Your task to perform on an android device: uninstall "Google Duo" Image 0: 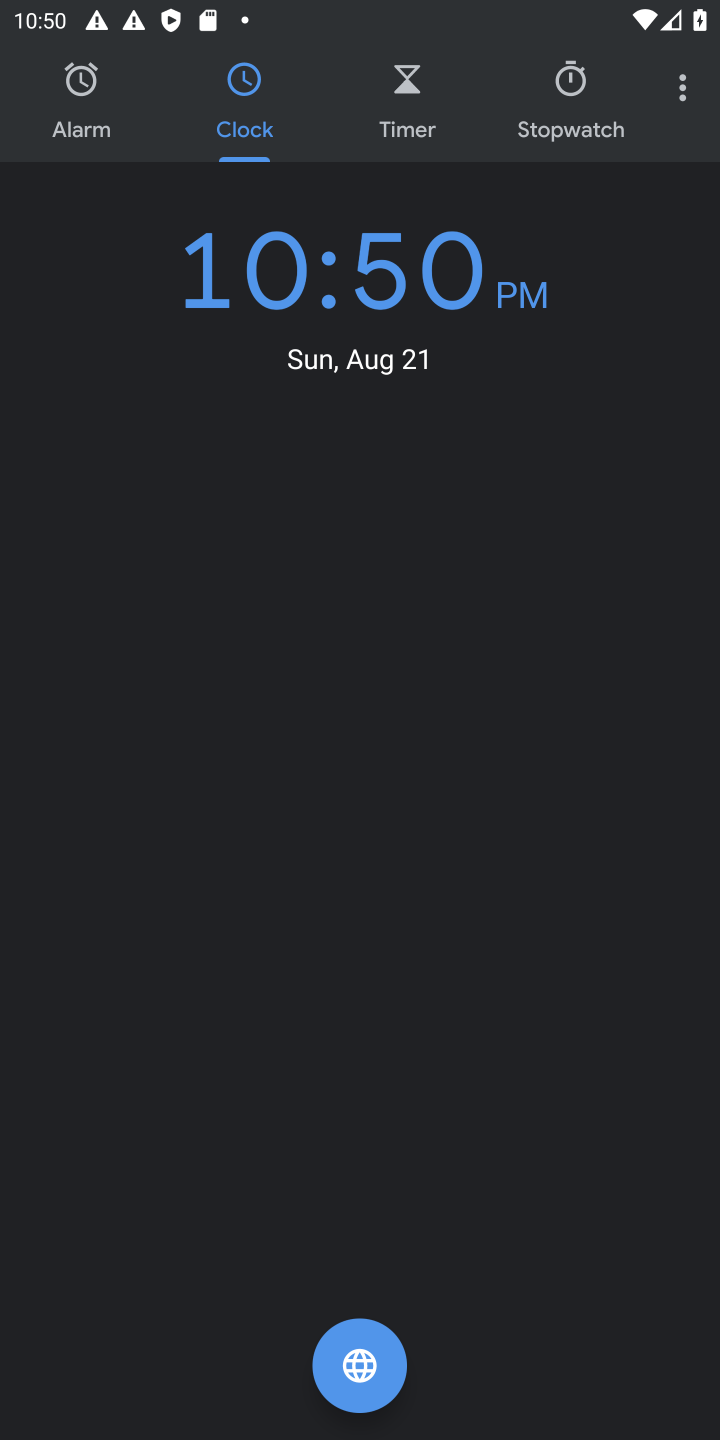
Step 0: press home button
Your task to perform on an android device: uninstall "Google Duo" Image 1: 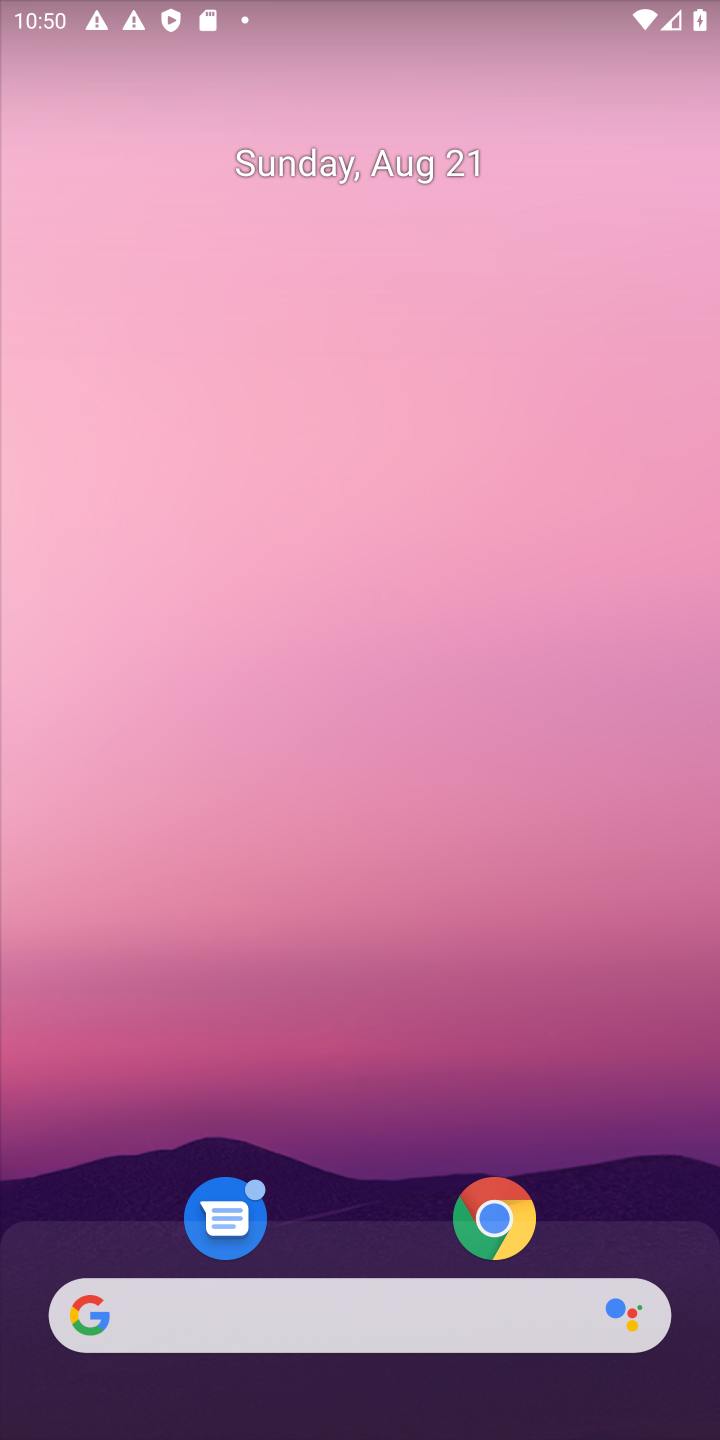
Step 1: drag from (385, 1318) to (413, 249)
Your task to perform on an android device: uninstall "Google Duo" Image 2: 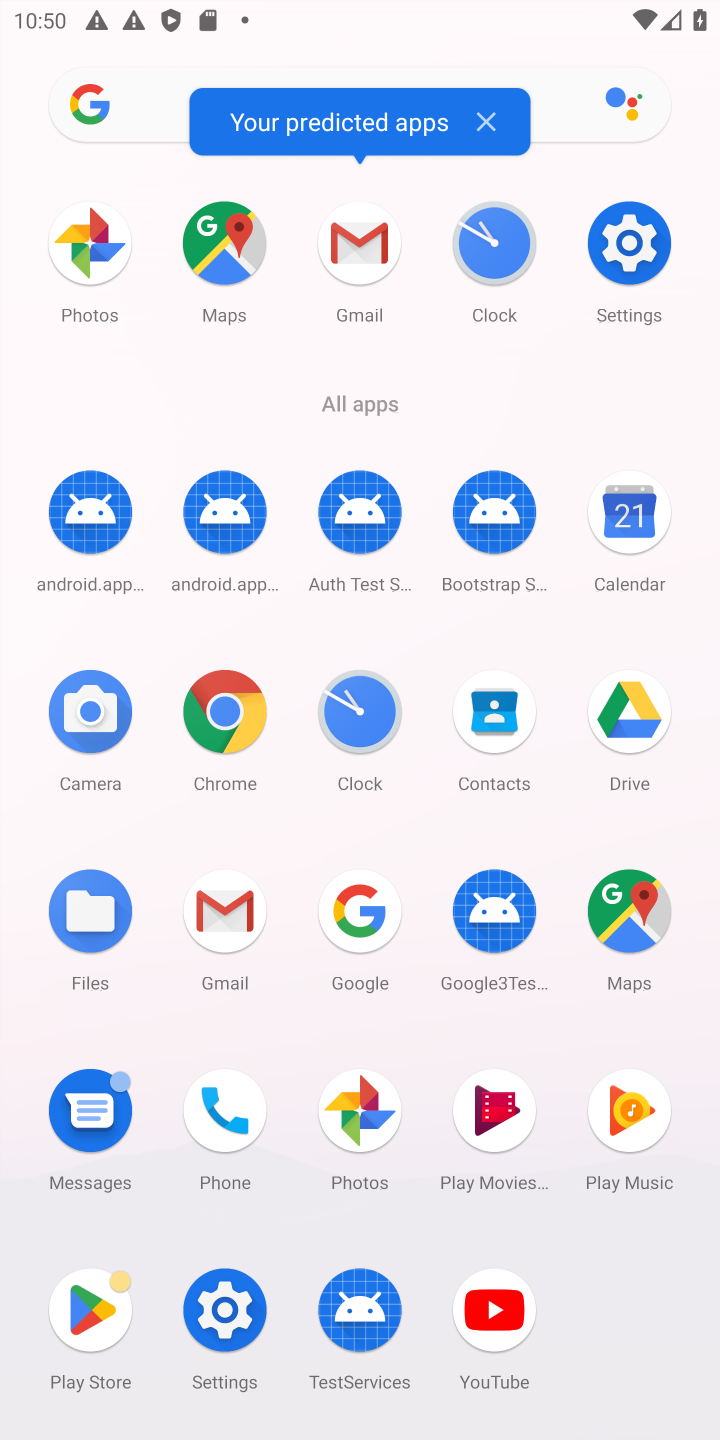
Step 2: click (78, 1315)
Your task to perform on an android device: uninstall "Google Duo" Image 3: 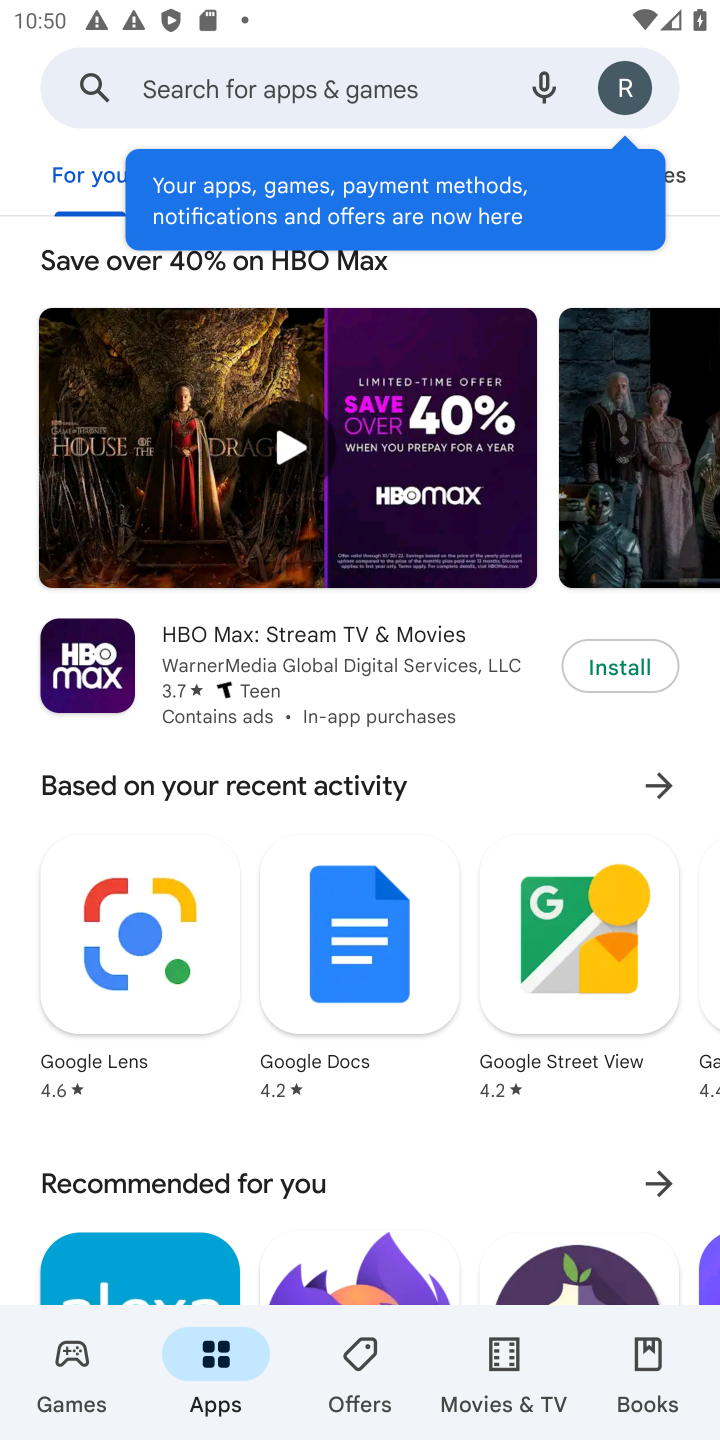
Step 3: click (189, 91)
Your task to perform on an android device: uninstall "Google Duo" Image 4: 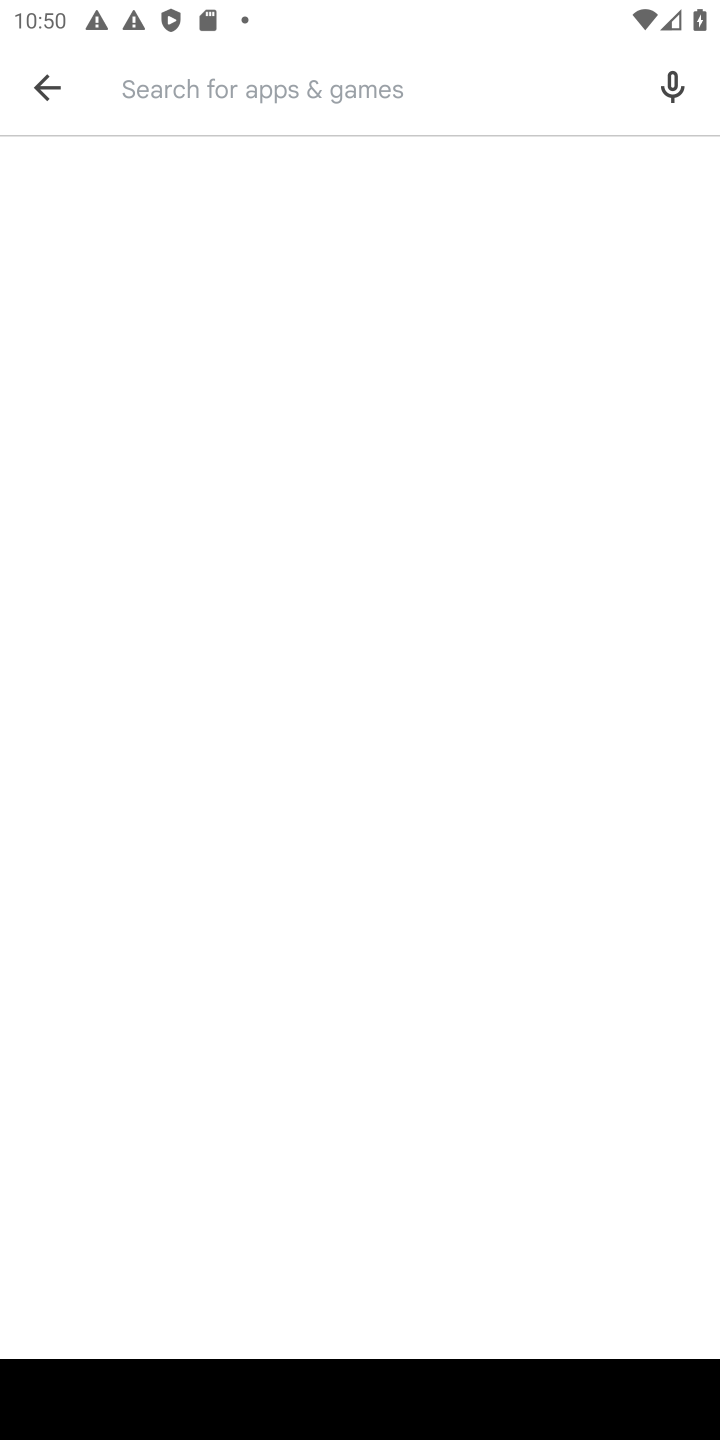
Step 4: type "Google Duo"
Your task to perform on an android device: uninstall "Google Duo" Image 5: 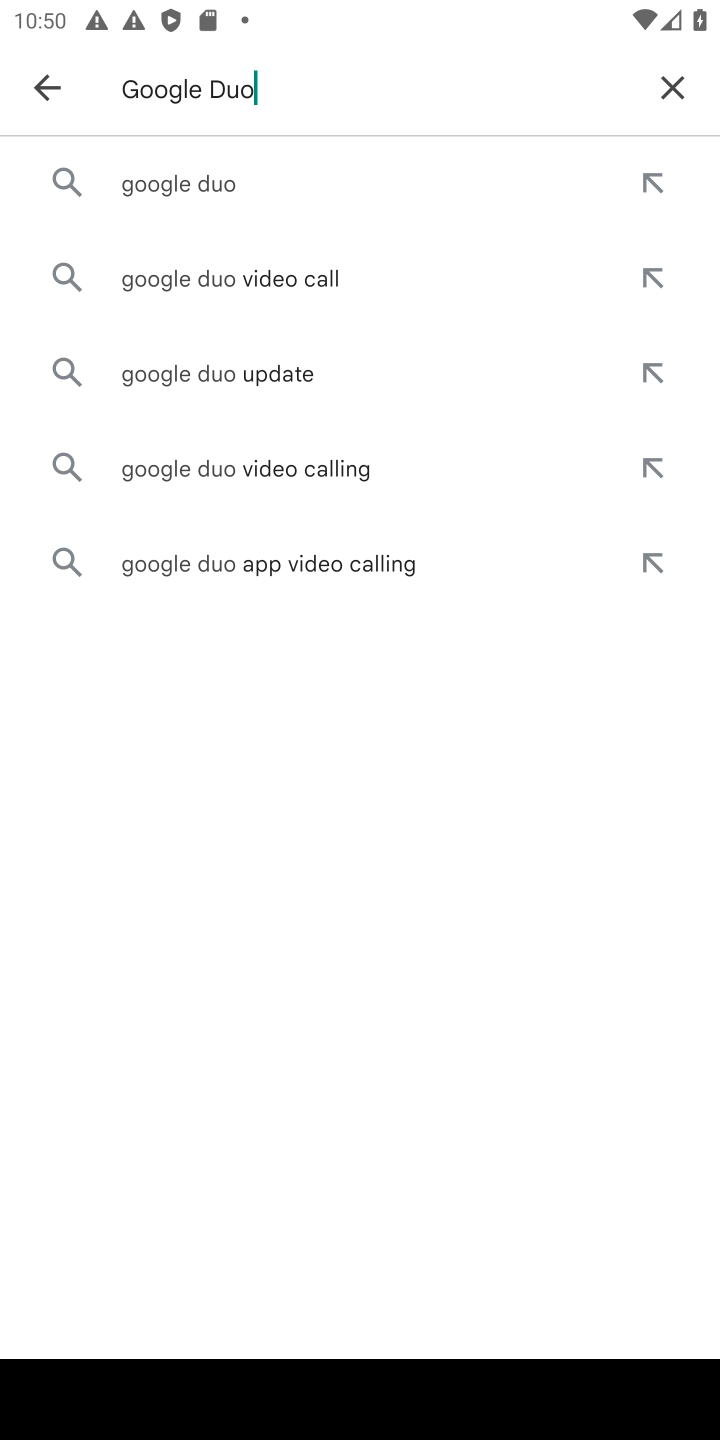
Step 5: click (176, 182)
Your task to perform on an android device: uninstall "Google Duo" Image 6: 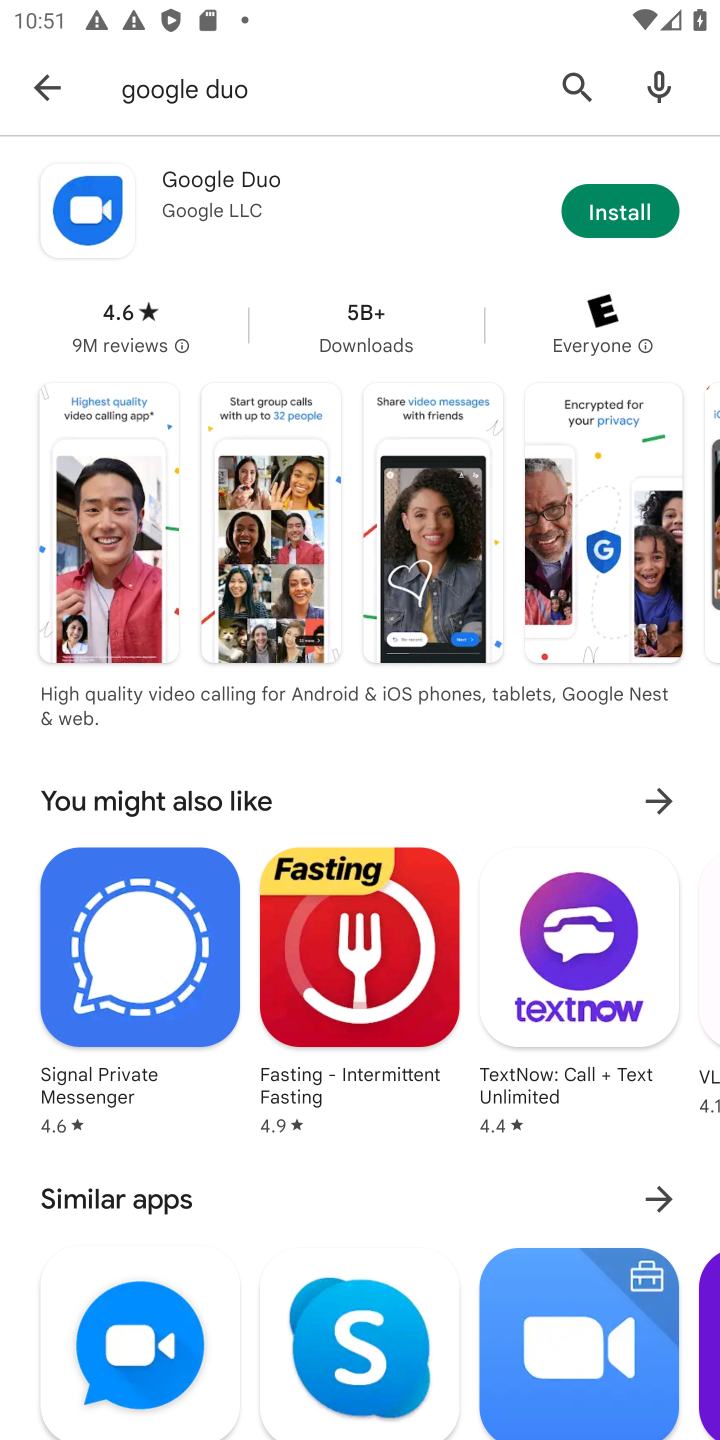
Step 6: task complete